Your task to perform on an android device: install app "Gmail" Image 0: 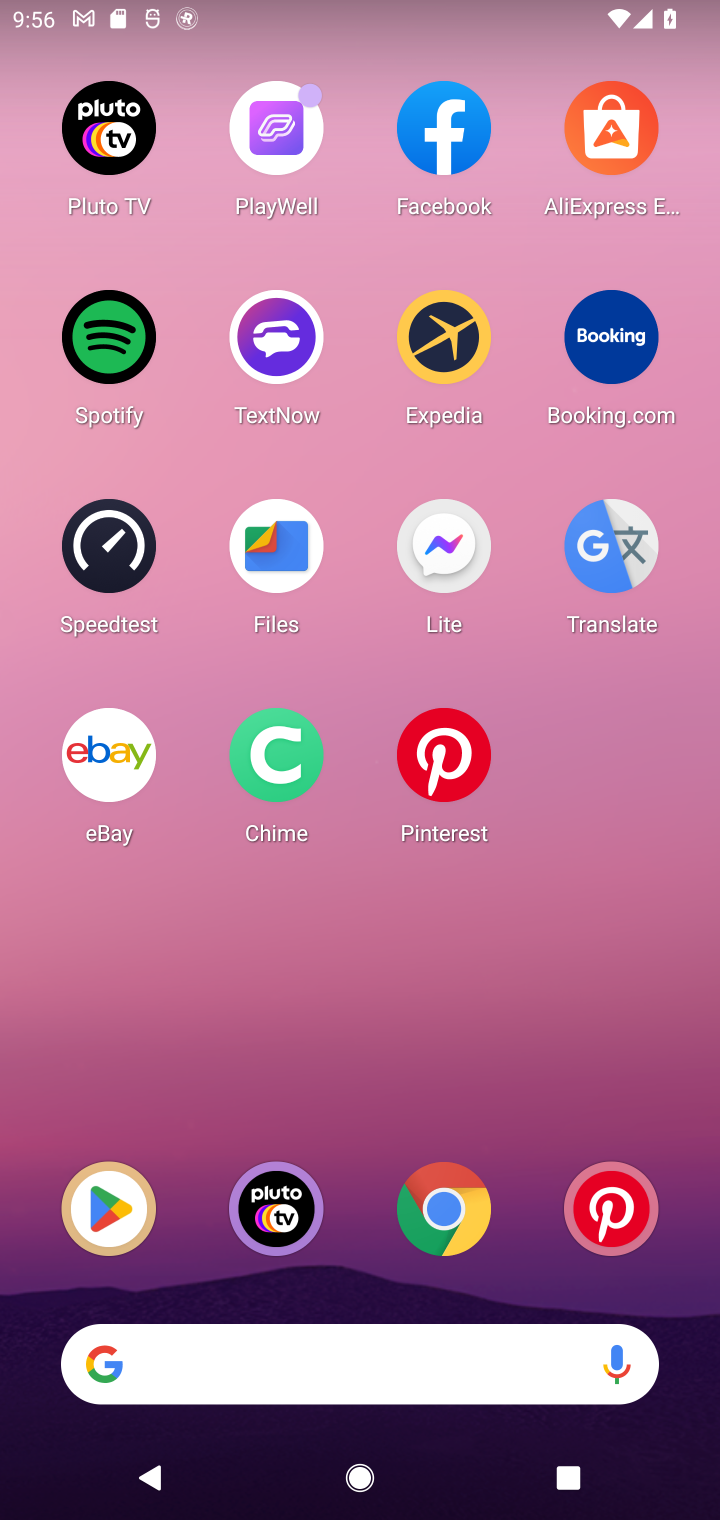
Step 0: press home button
Your task to perform on an android device: install app "Gmail" Image 1: 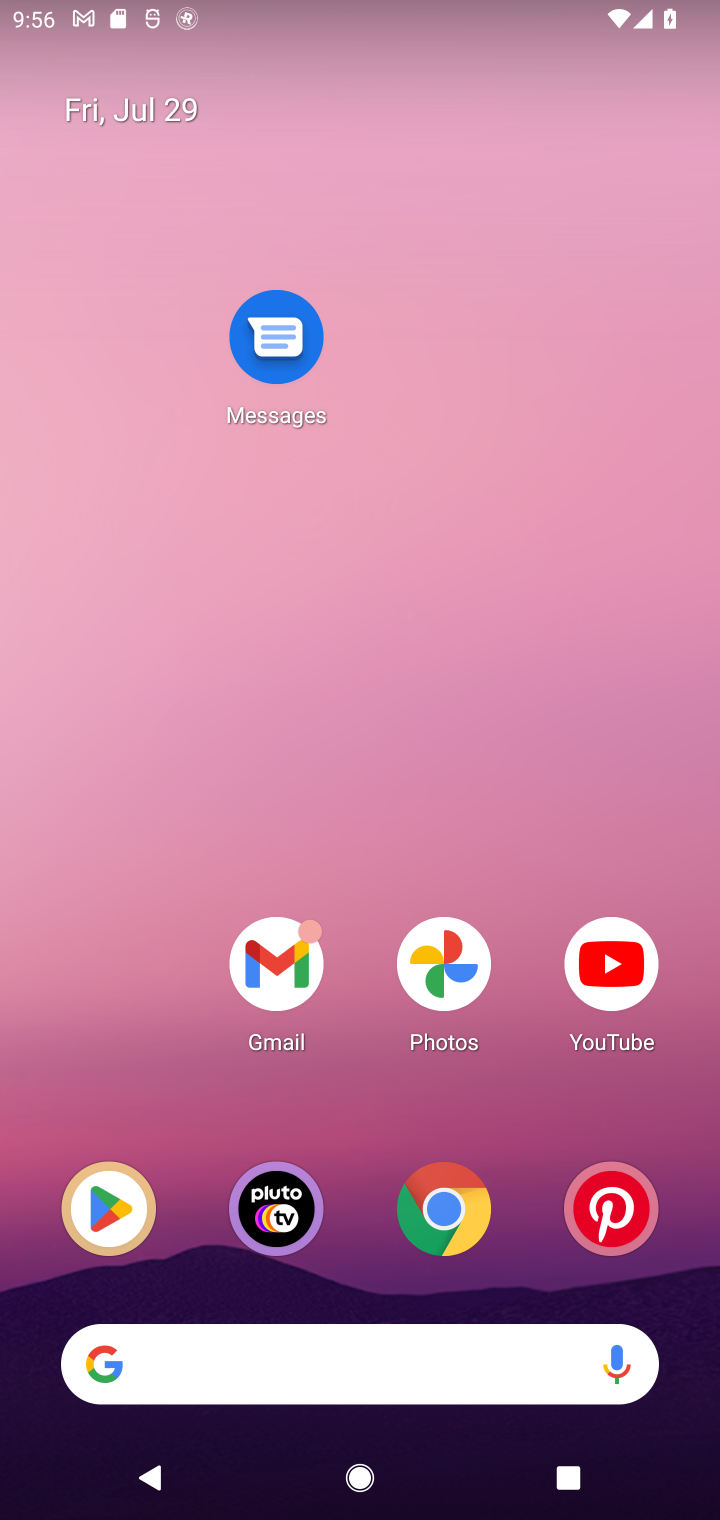
Step 1: drag from (293, 1358) to (522, 330)
Your task to perform on an android device: install app "Gmail" Image 2: 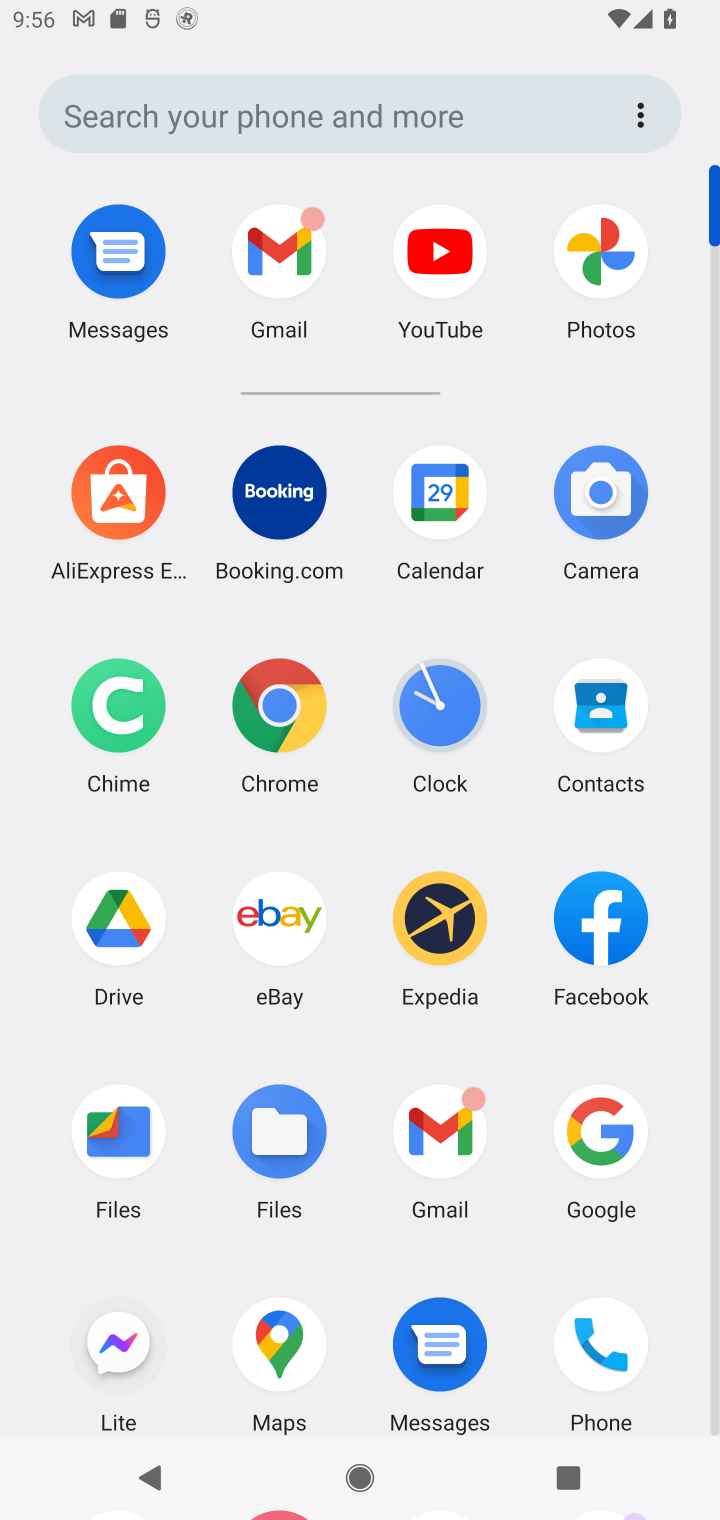
Step 2: drag from (348, 1276) to (435, 663)
Your task to perform on an android device: install app "Gmail" Image 3: 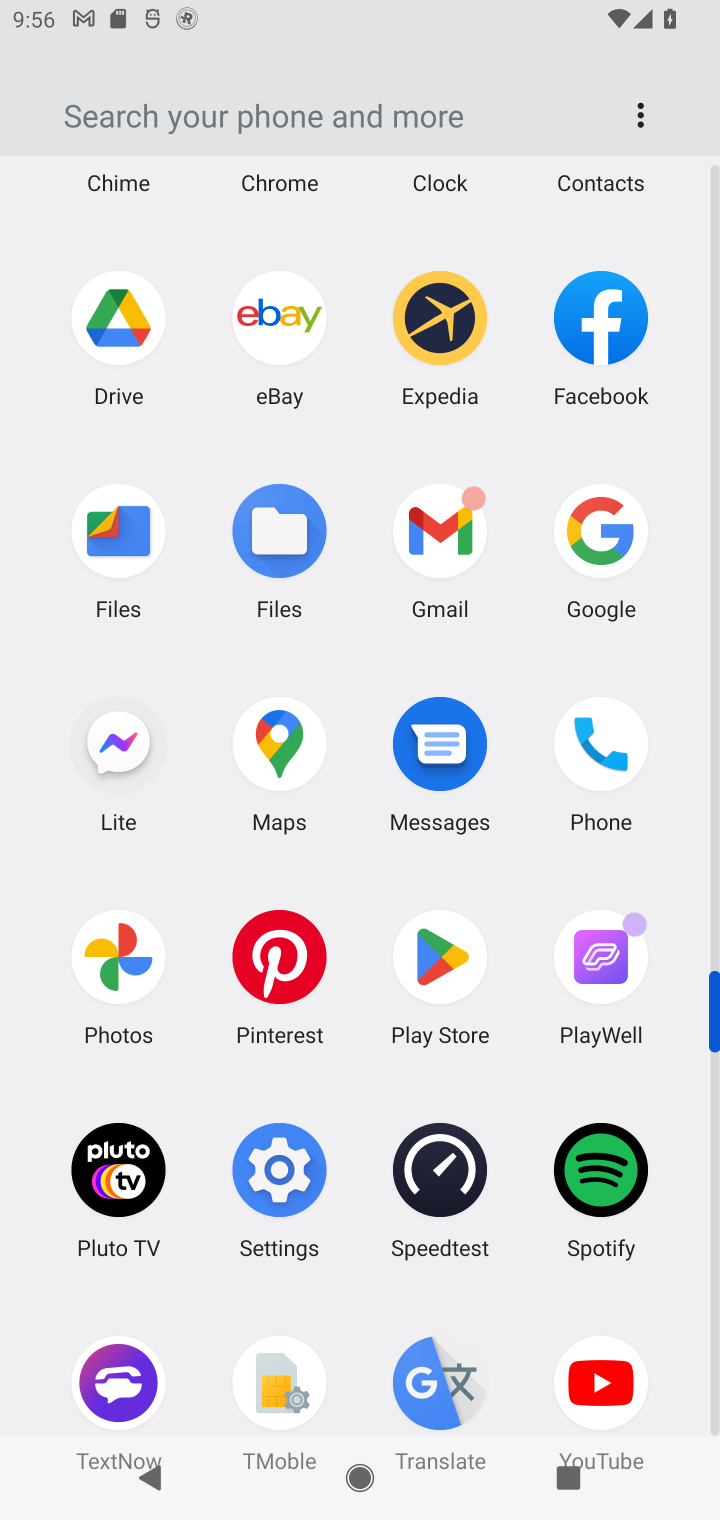
Step 3: click (443, 966)
Your task to perform on an android device: install app "Gmail" Image 4: 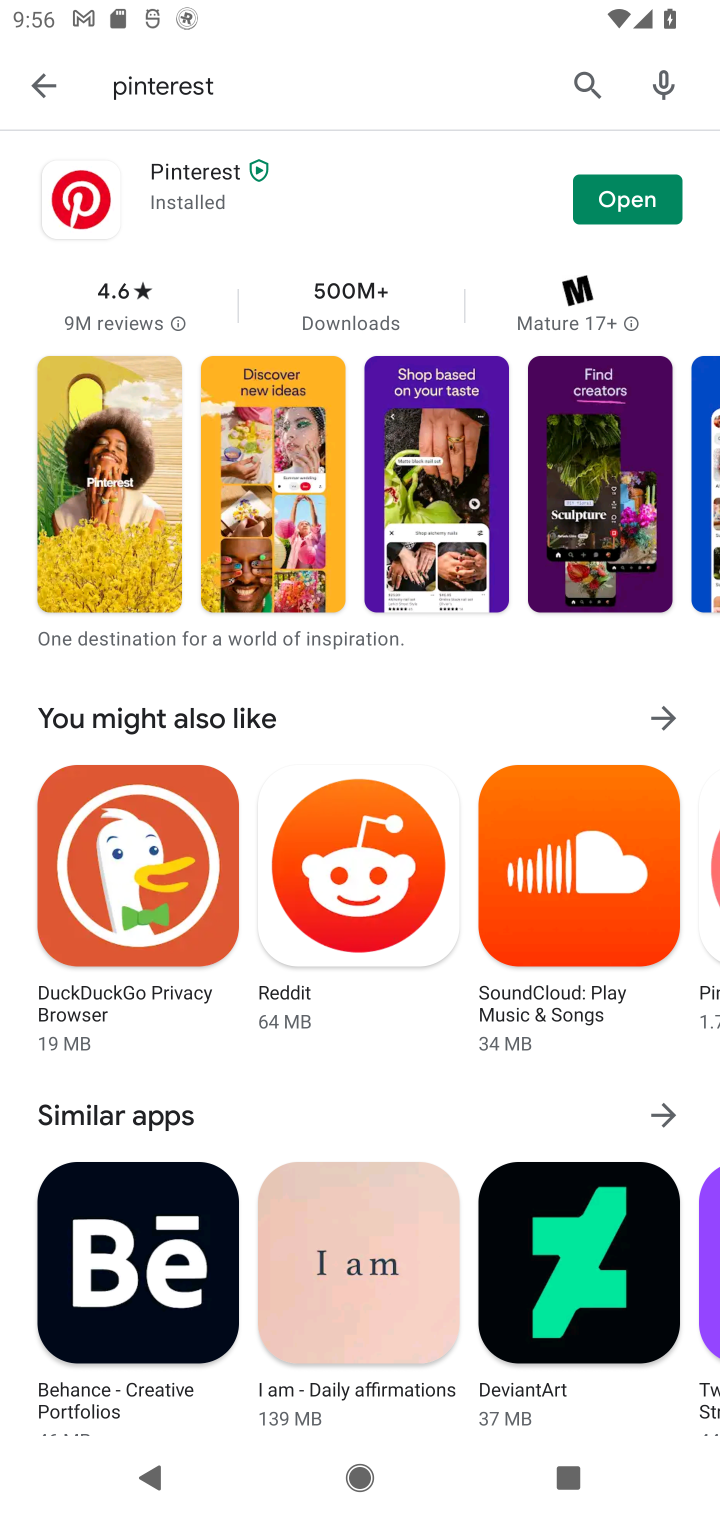
Step 4: click (443, 966)
Your task to perform on an android device: install app "Gmail" Image 5: 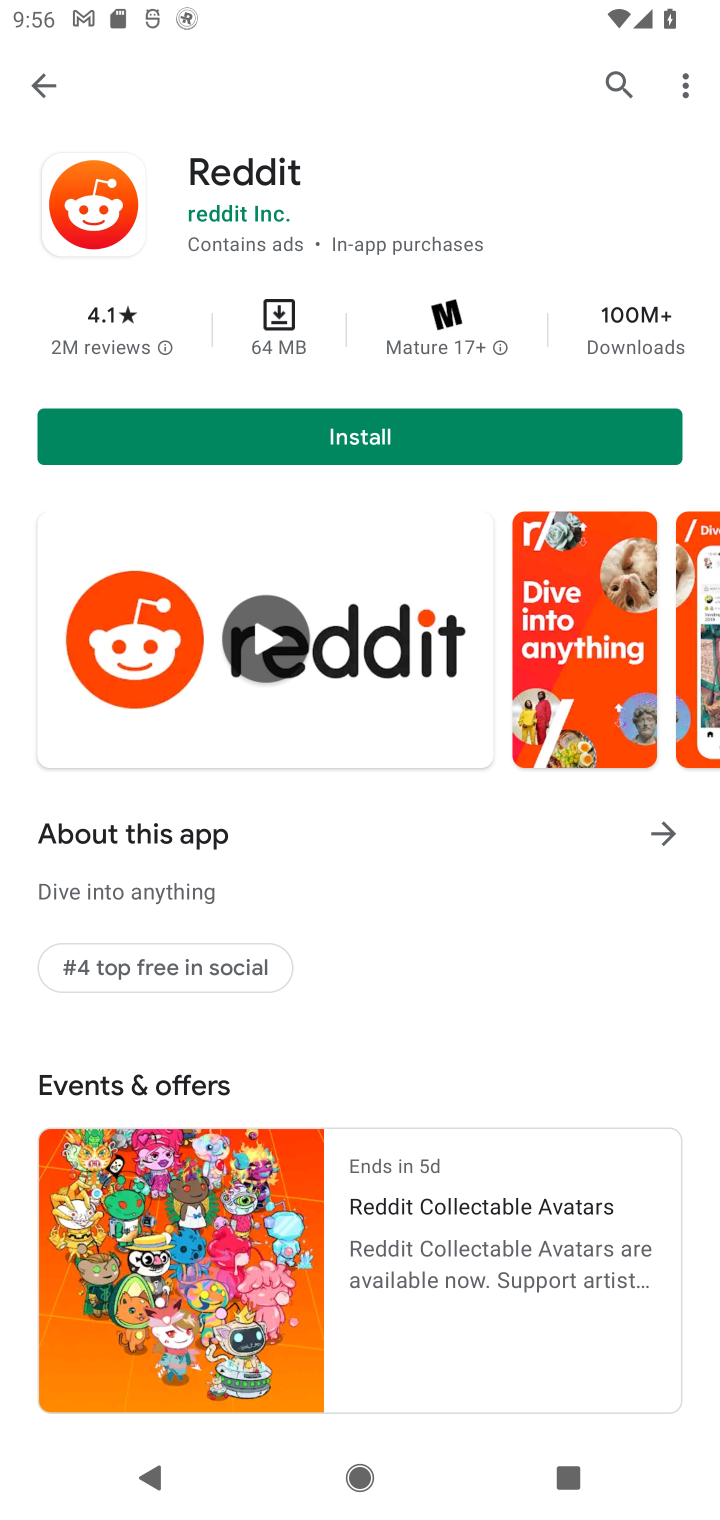
Step 5: click (612, 74)
Your task to perform on an android device: install app "Gmail" Image 6: 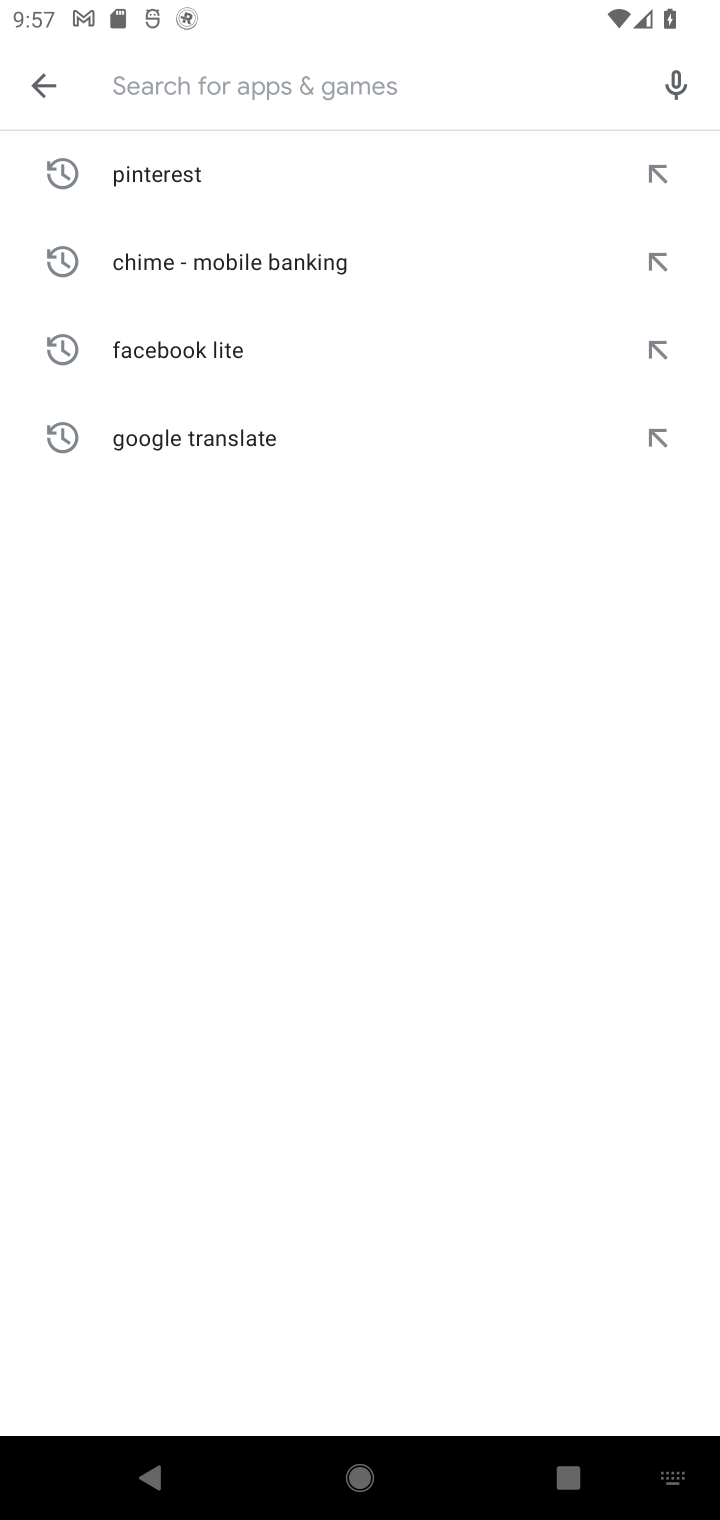
Step 6: type "Gmail"
Your task to perform on an android device: install app "Gmail" Image 7: 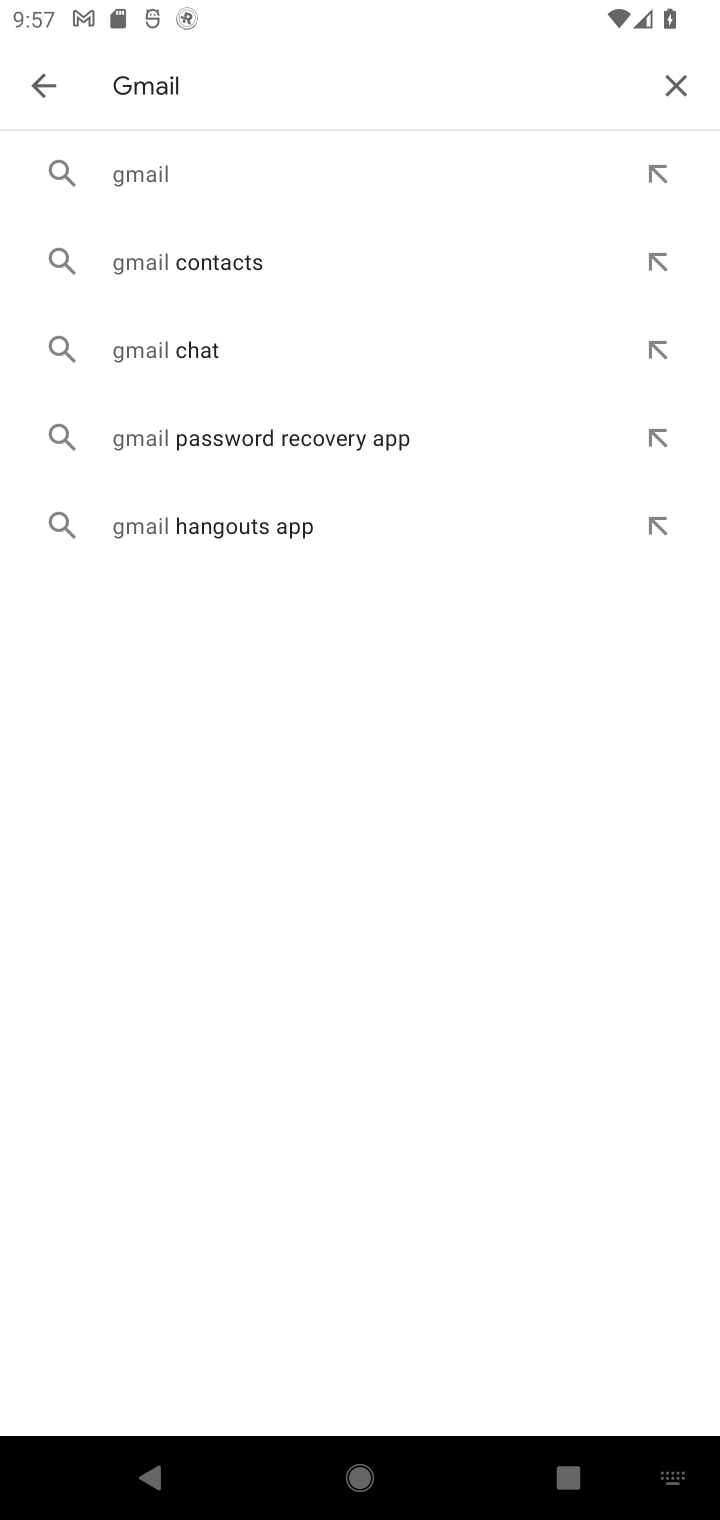
Step 7: click (128, 189)
Your task to perform on an android device: install app "Gmail" Image 8: 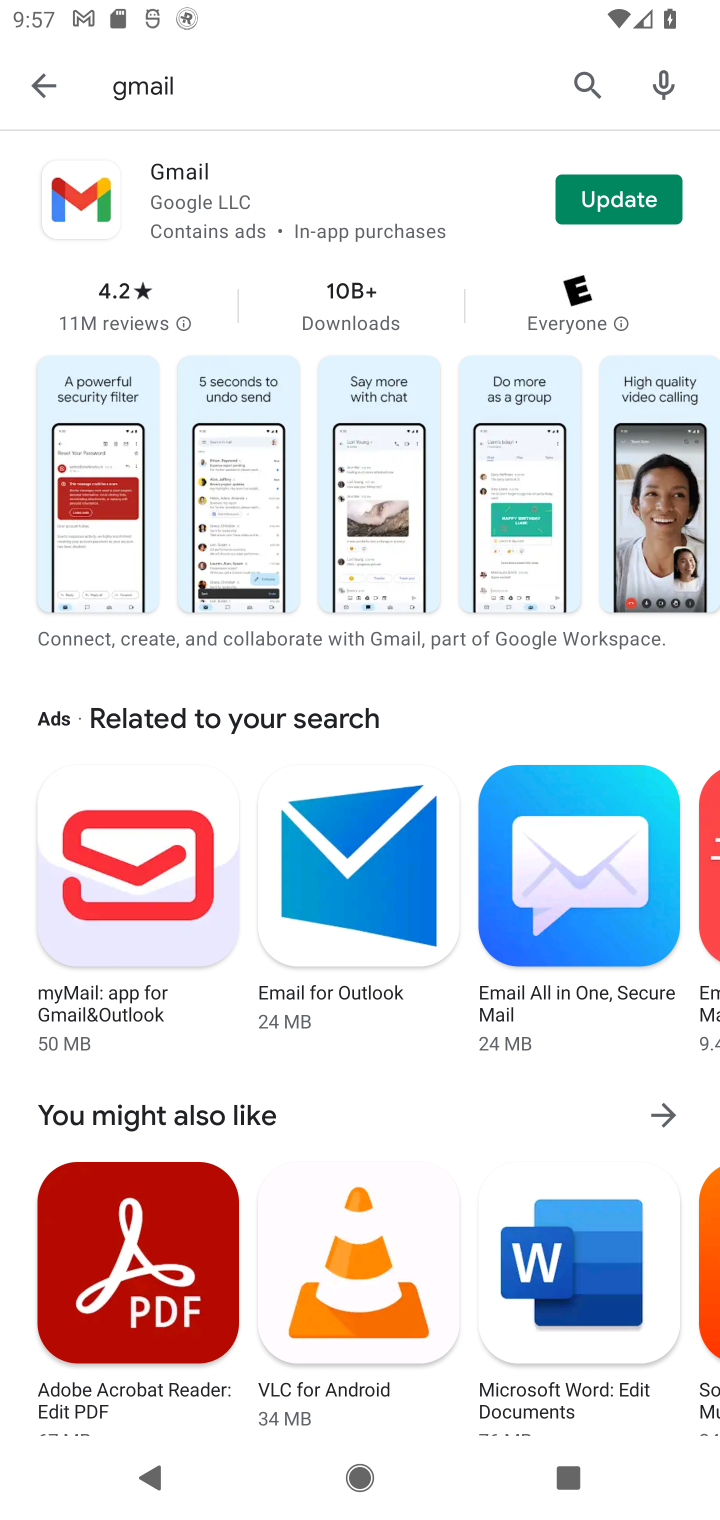
Step 8: click (200, 178)
Your task to perform on an android device: install app "Gmail" Image 9: 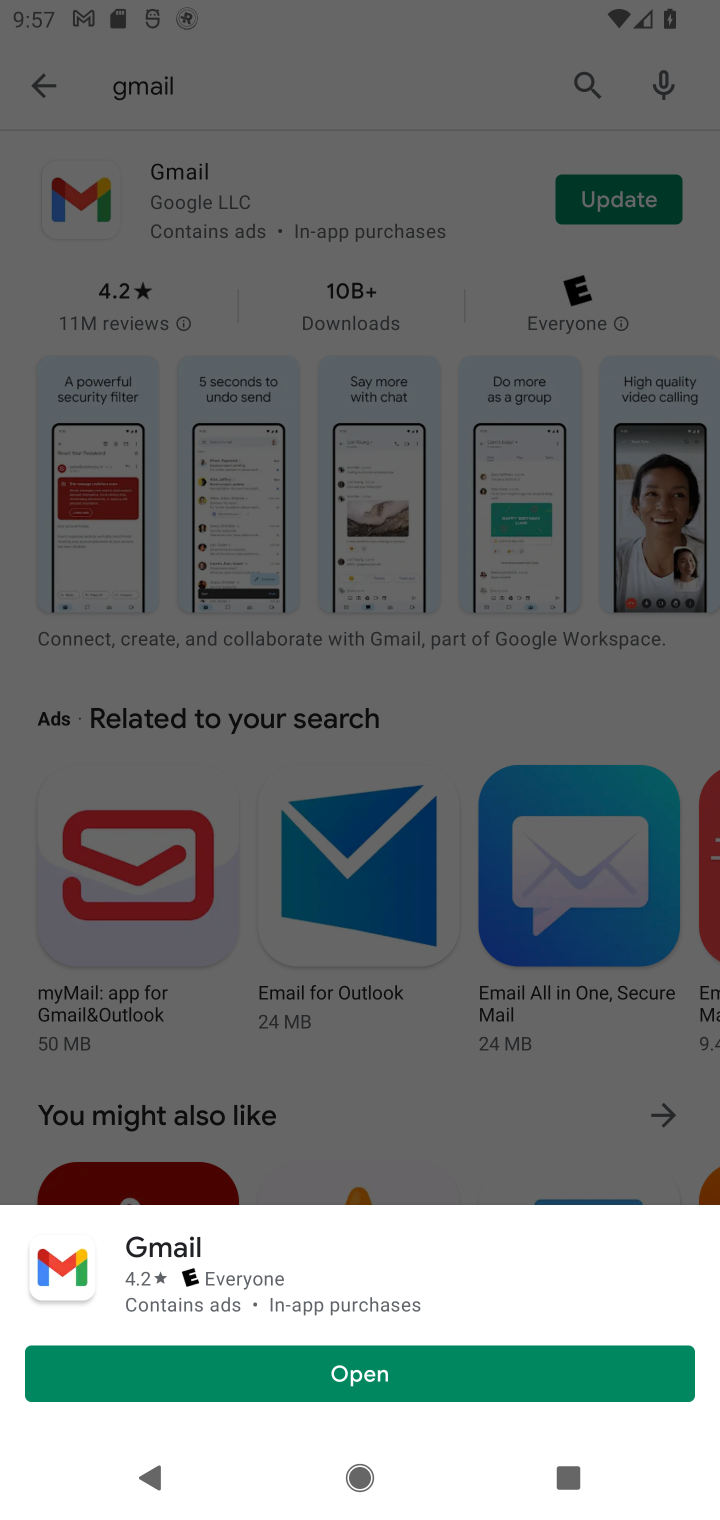
Step 9: click (630, 209)
Your task to perform on an android device: install app "Gmail" Image 10: 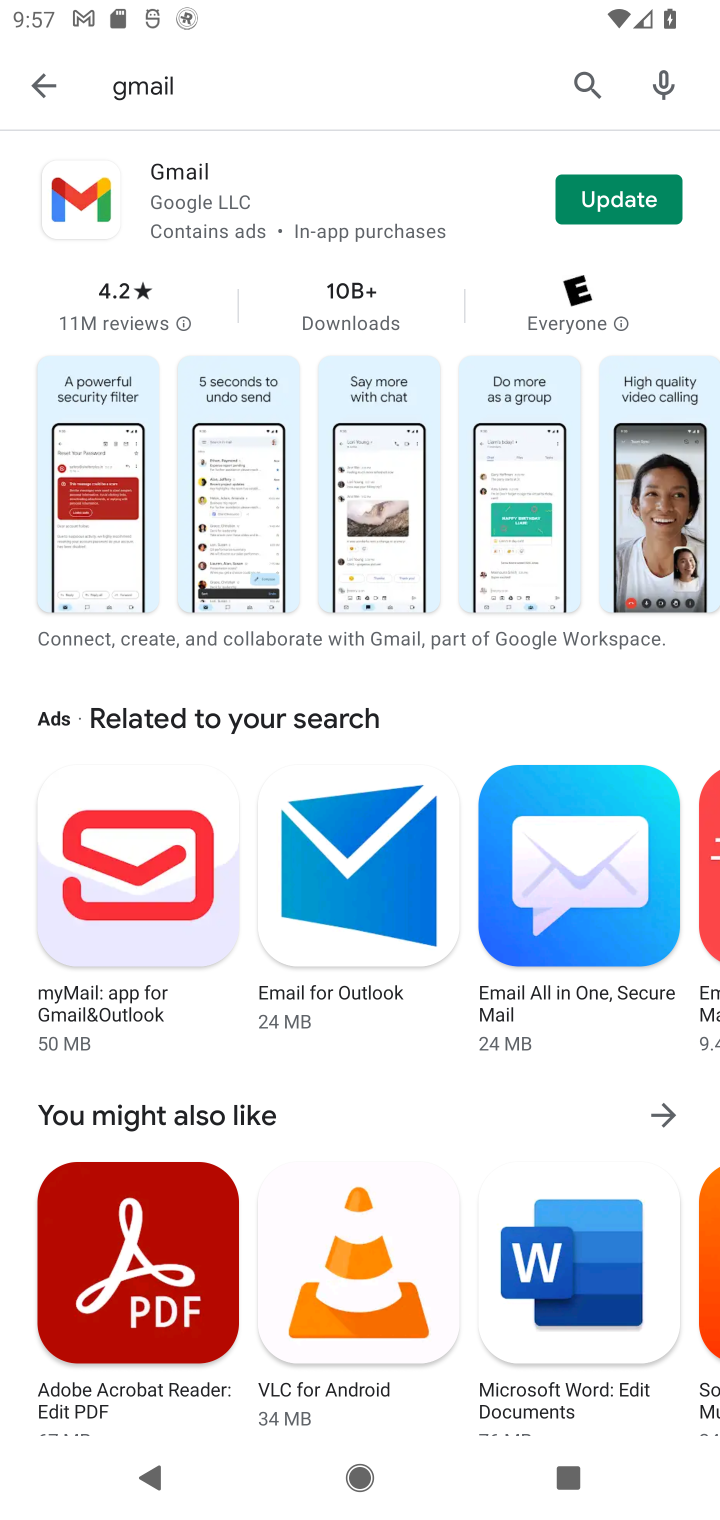
Step 10: click (630, 209)
Your task to perform on an android device: install app "Gmail" Image 11: 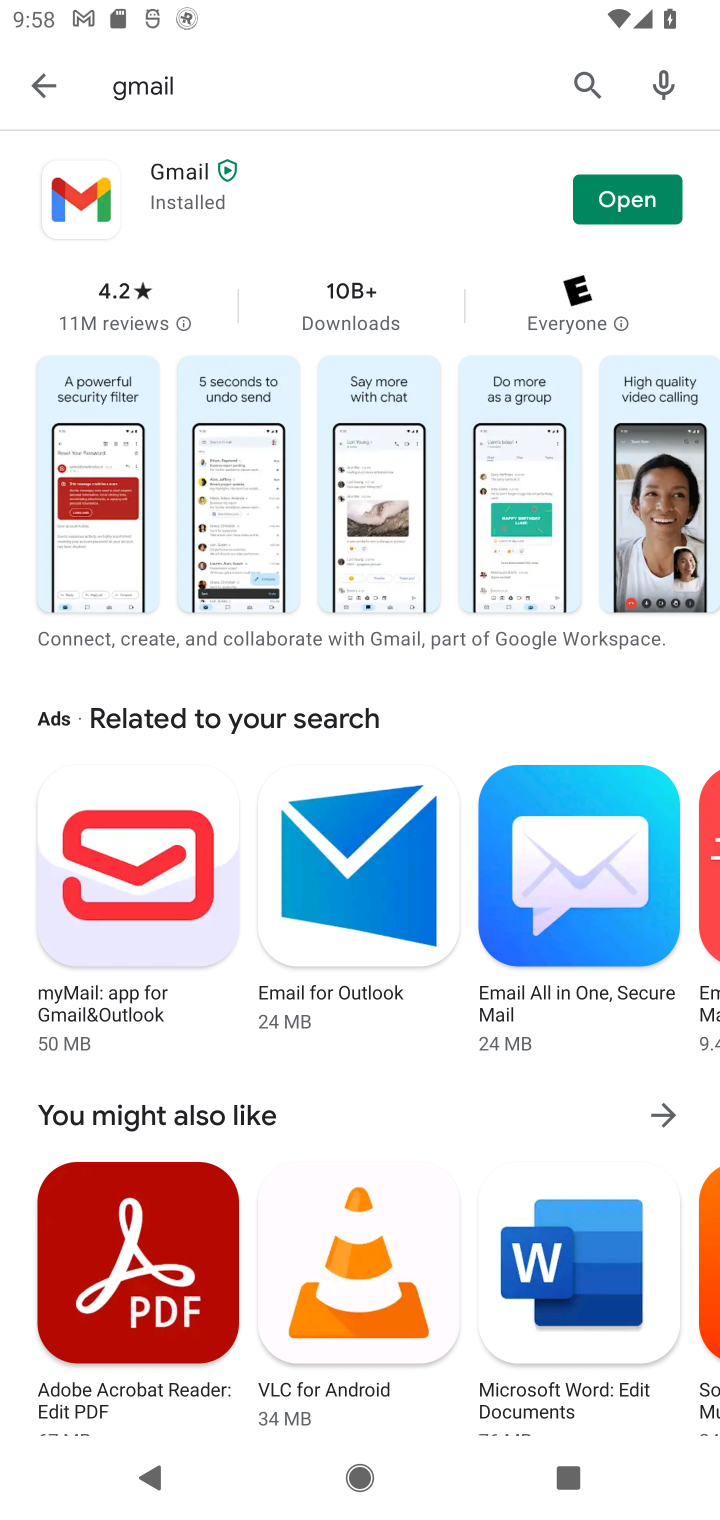
Step 11: task complete